Your task to perform on an android device: Open eBay Image 0: 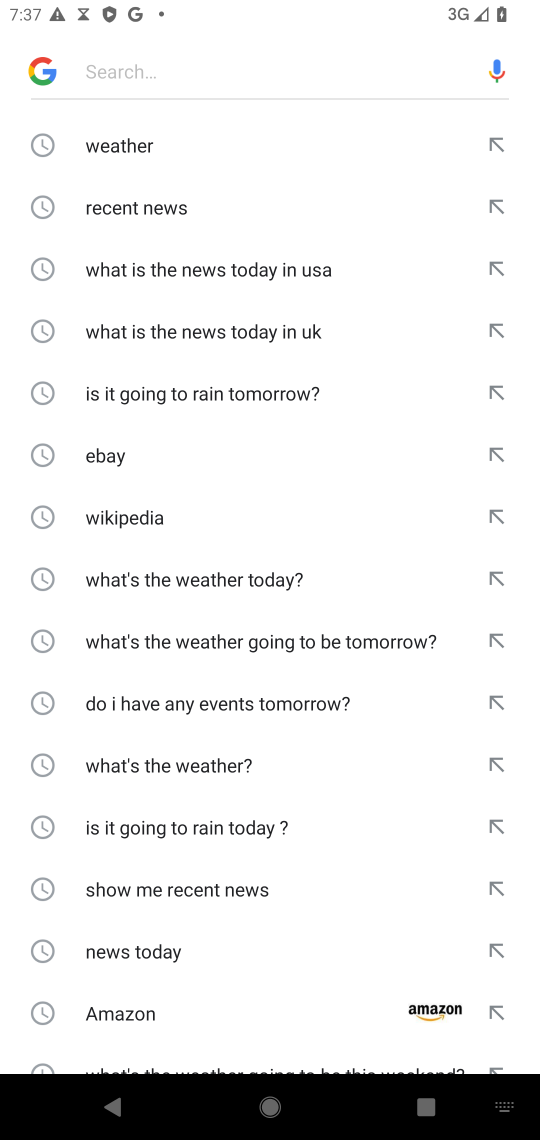
Step 0: press home button
Your task to perform on an android device: Open eBay Image 1: 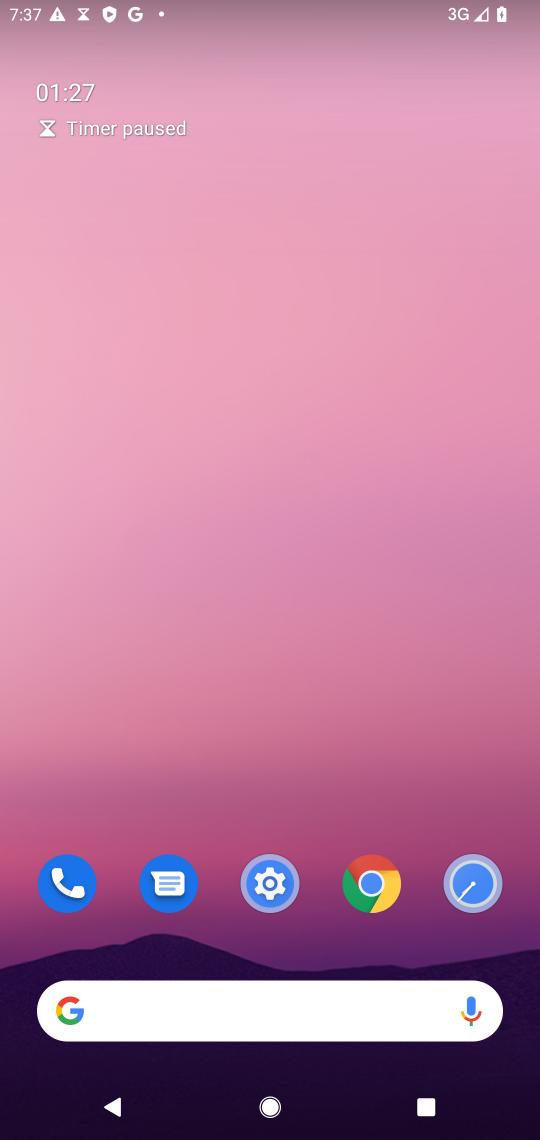
Step 1: click (373, 888)
Your task to perform on an android device: Open eBay Image 2: 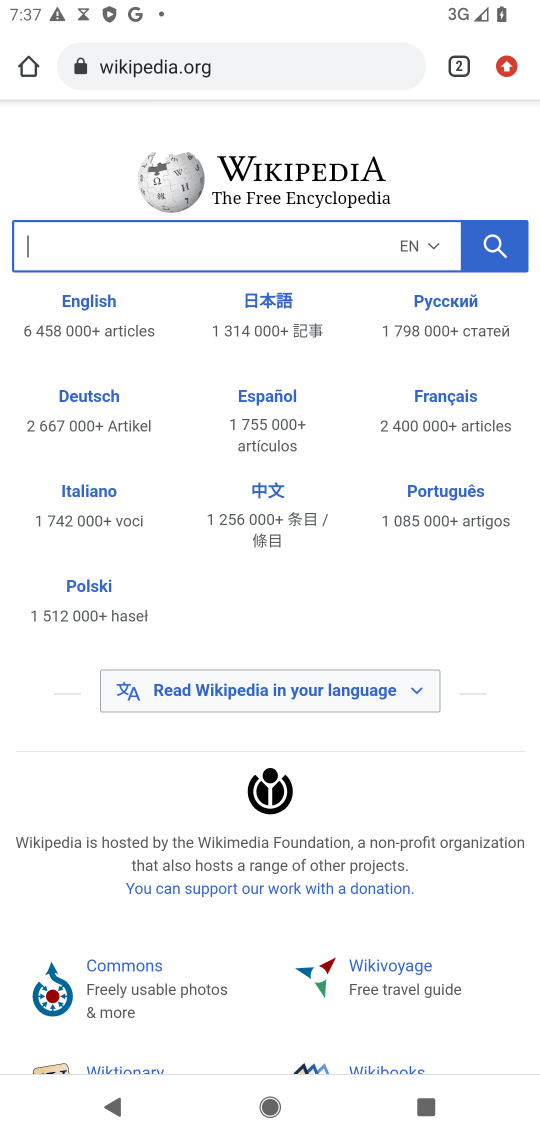
Step 2: click (339, 76)
Your task to perform on an android device: Open eBay Image 3: 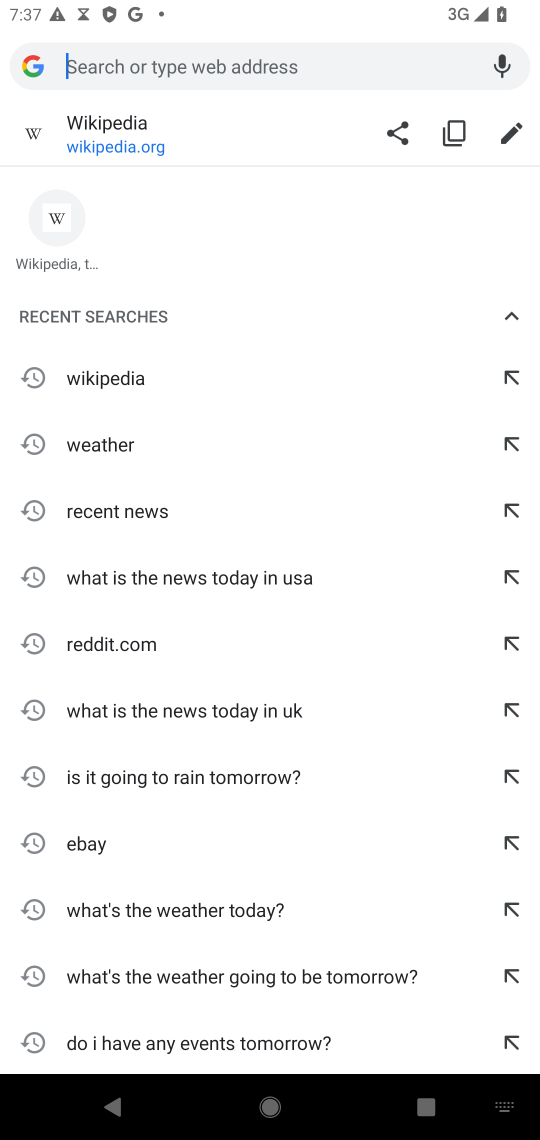
Step 3: type "eBay"
Your task to perform on an android device: Open eBay Image 4: 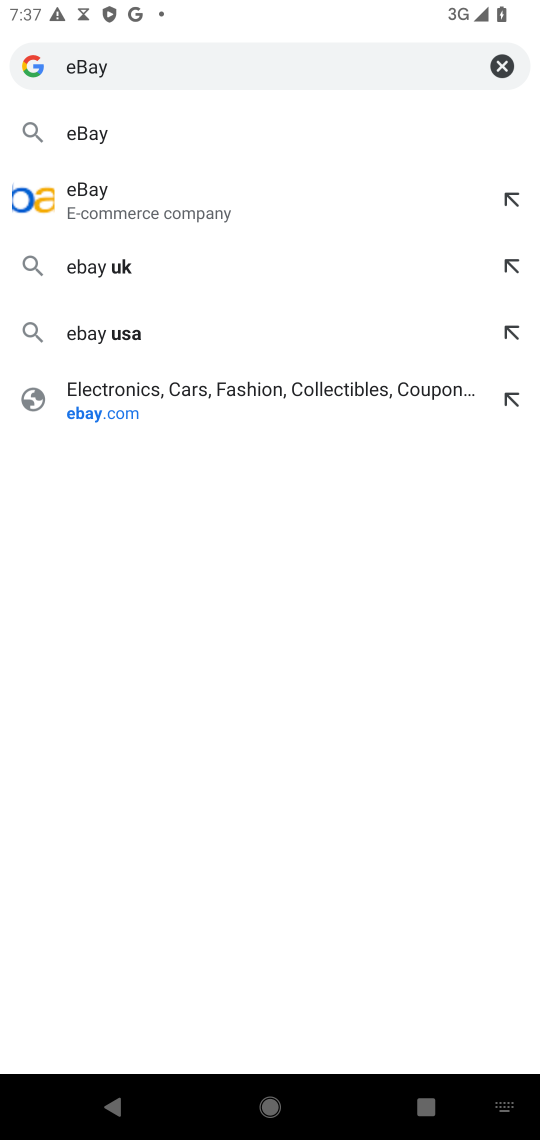
Step 4: click (78, 215)
Your task to perform on an android device: Open eBay Image 5: 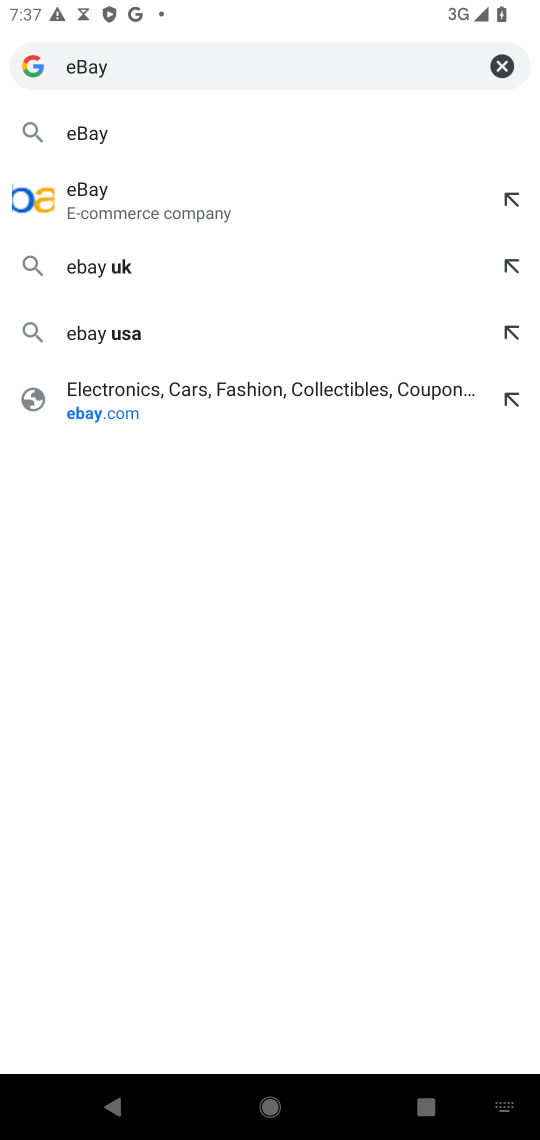
Step 5: click (65, 210)
Your task to perform on an android device: Open eBay Image 6: 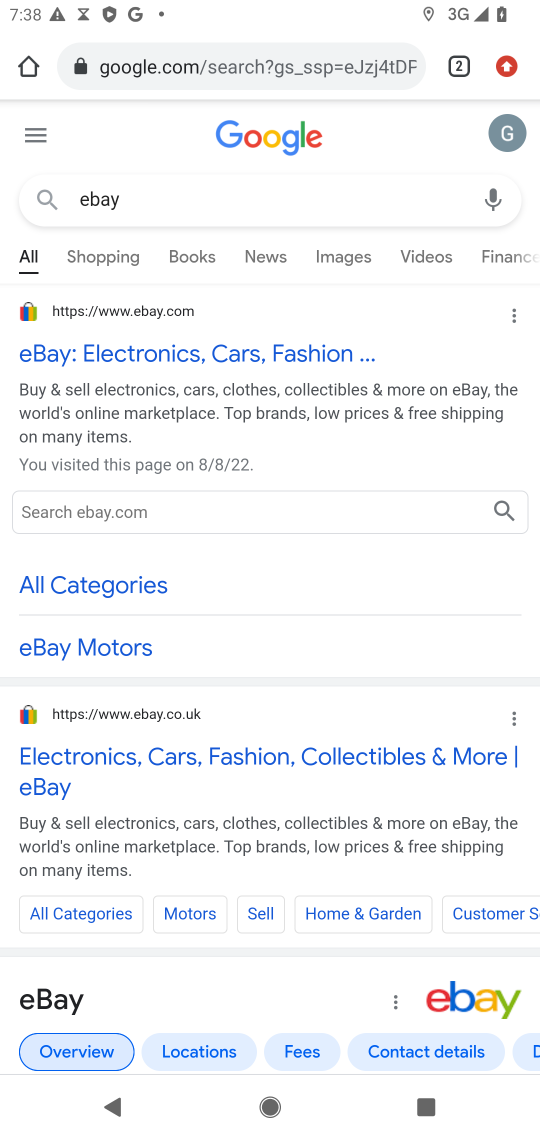
Step 6: click (211, 370)
Your task to perform on an android device: Open eBay Image 7: 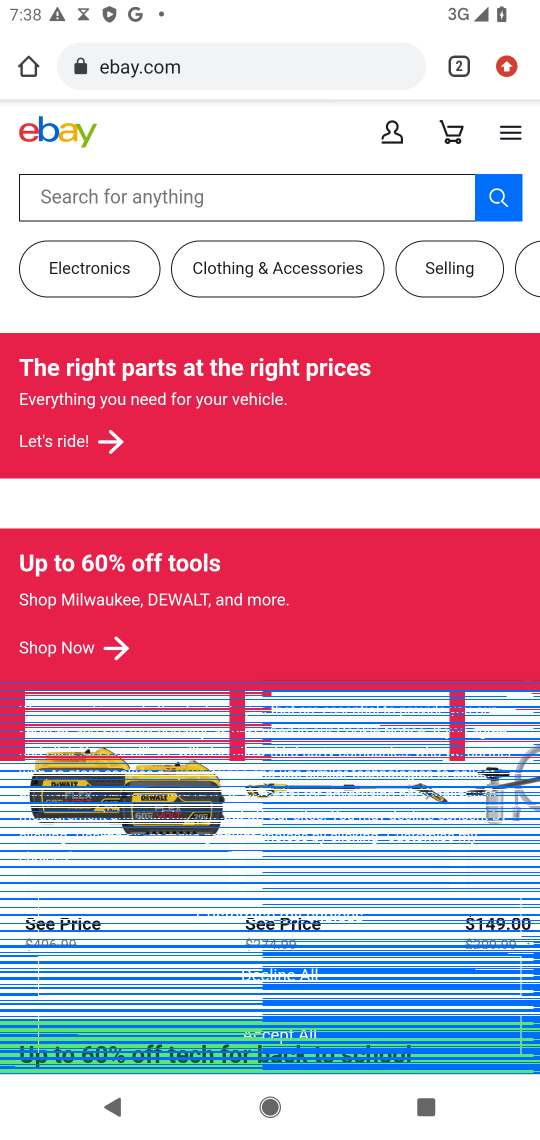
Step 7: task complete